Your task to perform on an android device: Show me recent news Image 0: 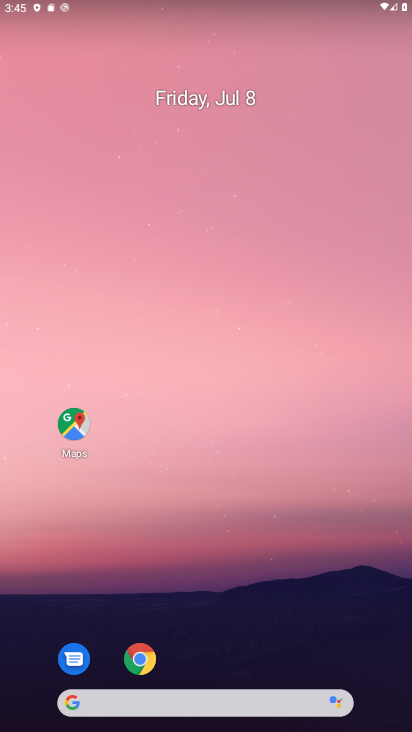
Step 0: click (210, 700)
Your task to perform on an android device: Show me recent news Image 1: 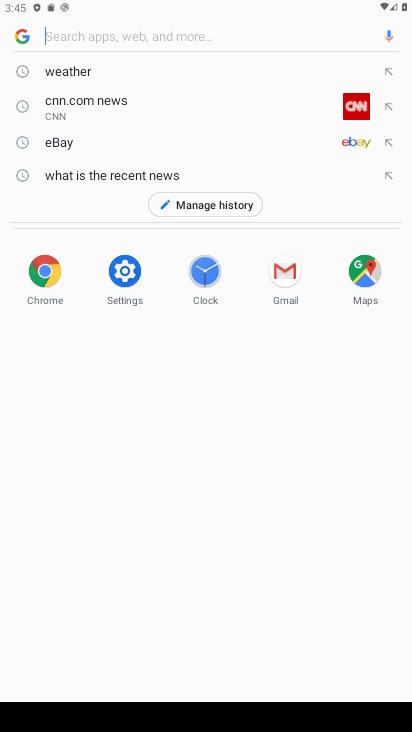
Step 1: click (225, 25)
Your task to perform on an android device: Show me recent news Image 2: 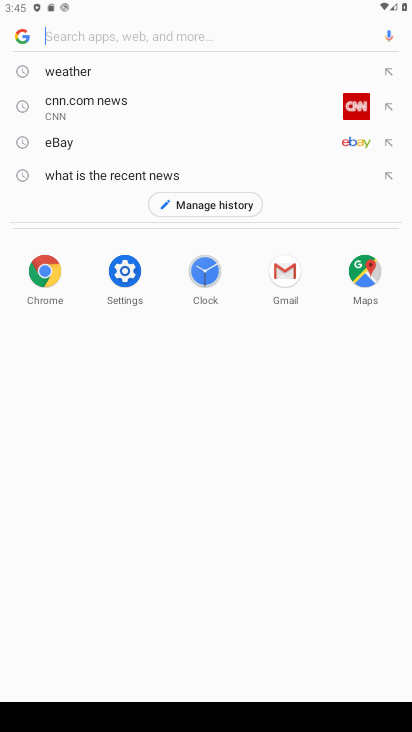
Step 2: type "news"
Your task to perform on an android device: Show me recent news Image 3: 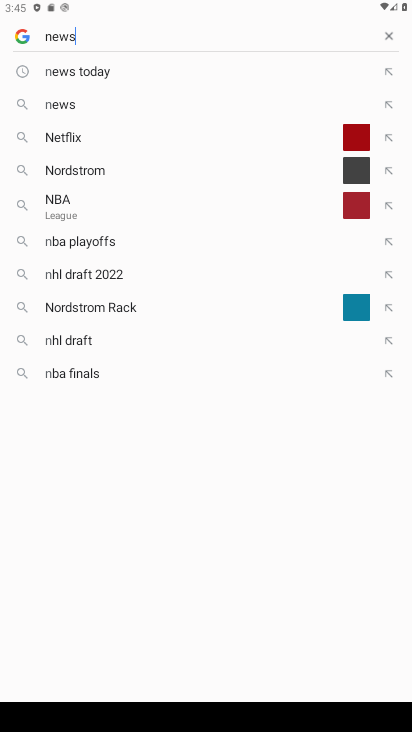
Step 3: type ""
Your task to perform on an android device: Show me recent news Image 4: 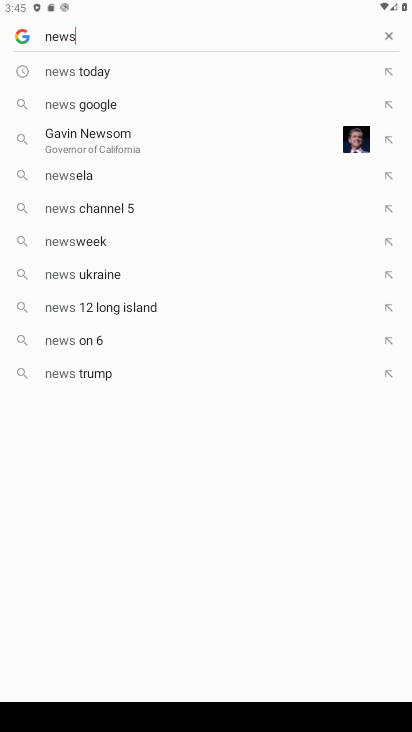
Step 4: click (130, 73)
Your task to perform on an android device: Show me recent news Image 5: 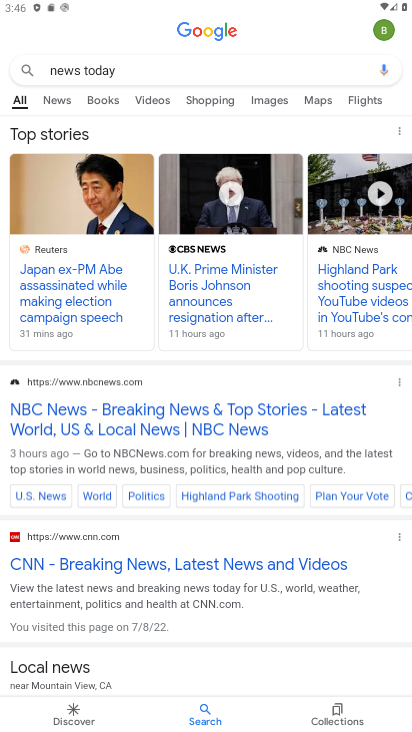
Step 5: task complete